Your task to perform on an android device: Is it going to rain this weekend? Image 0: 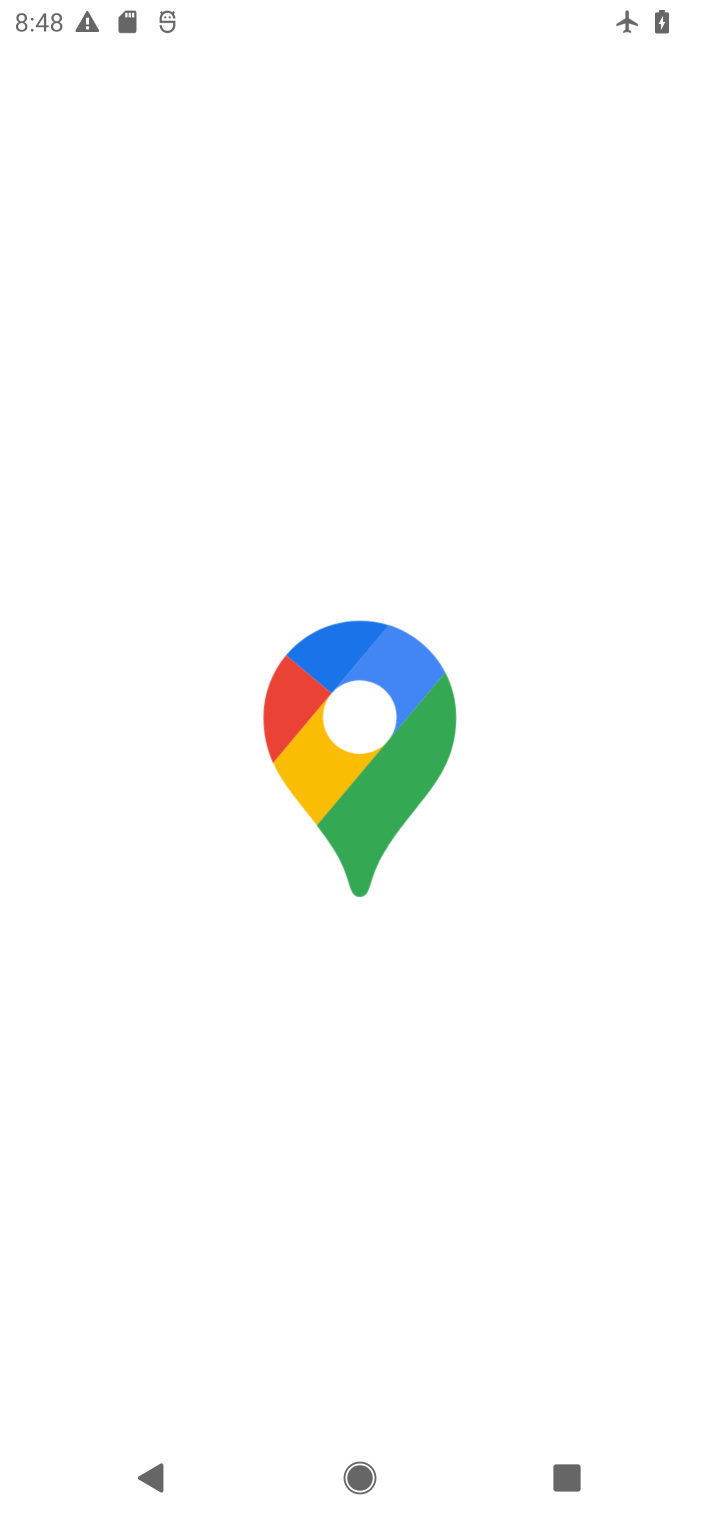
Step 0: press home button
Your task to perform on an android device: Is it going to rain this weekend? Image 1: 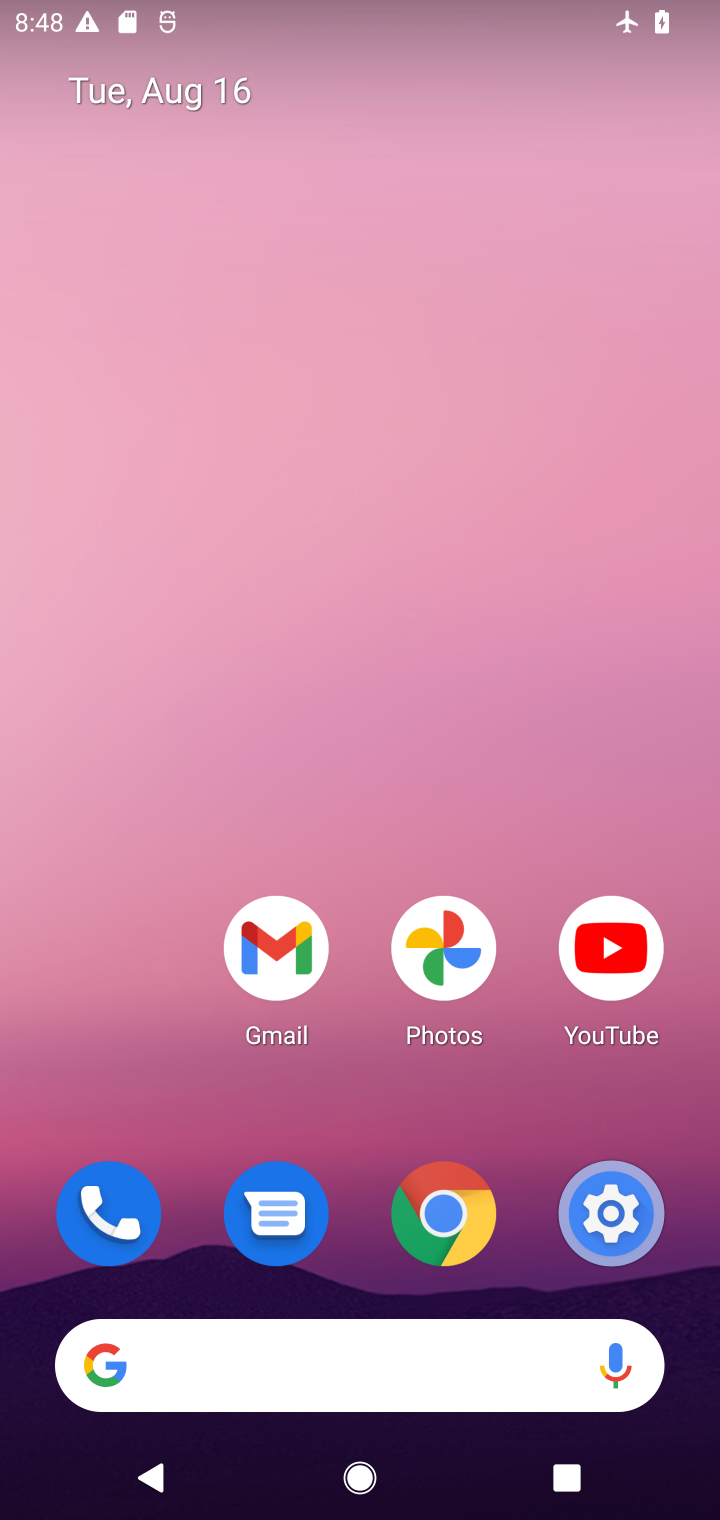
Step 1: drag from (328, 1266) to (354, 322)
Your task to perform on an android device: Is it going to rain this weekend? Image 2: 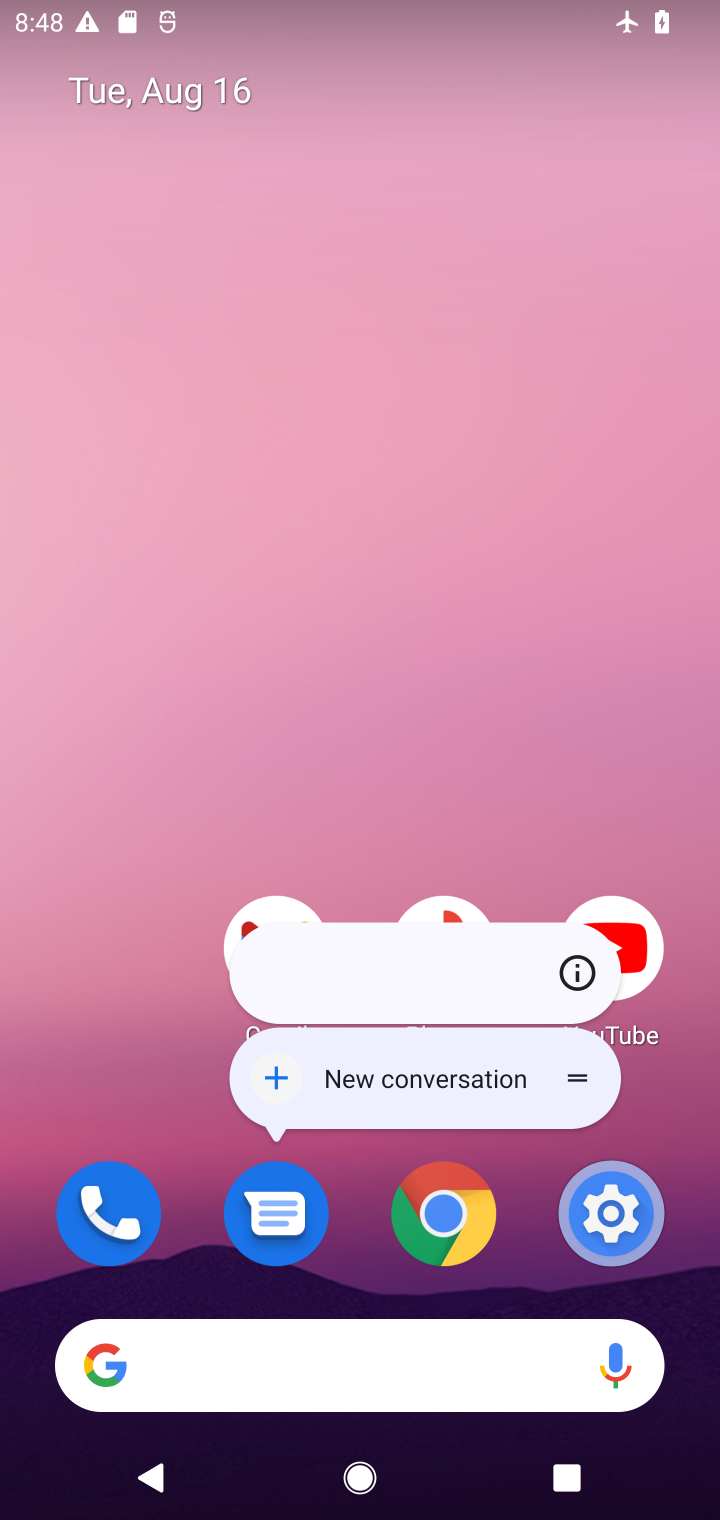
Step 2: drag from (361, 1231) to (367, 145)
Your task to perform on an android device: Is it going to rain this weekend? Image 3: 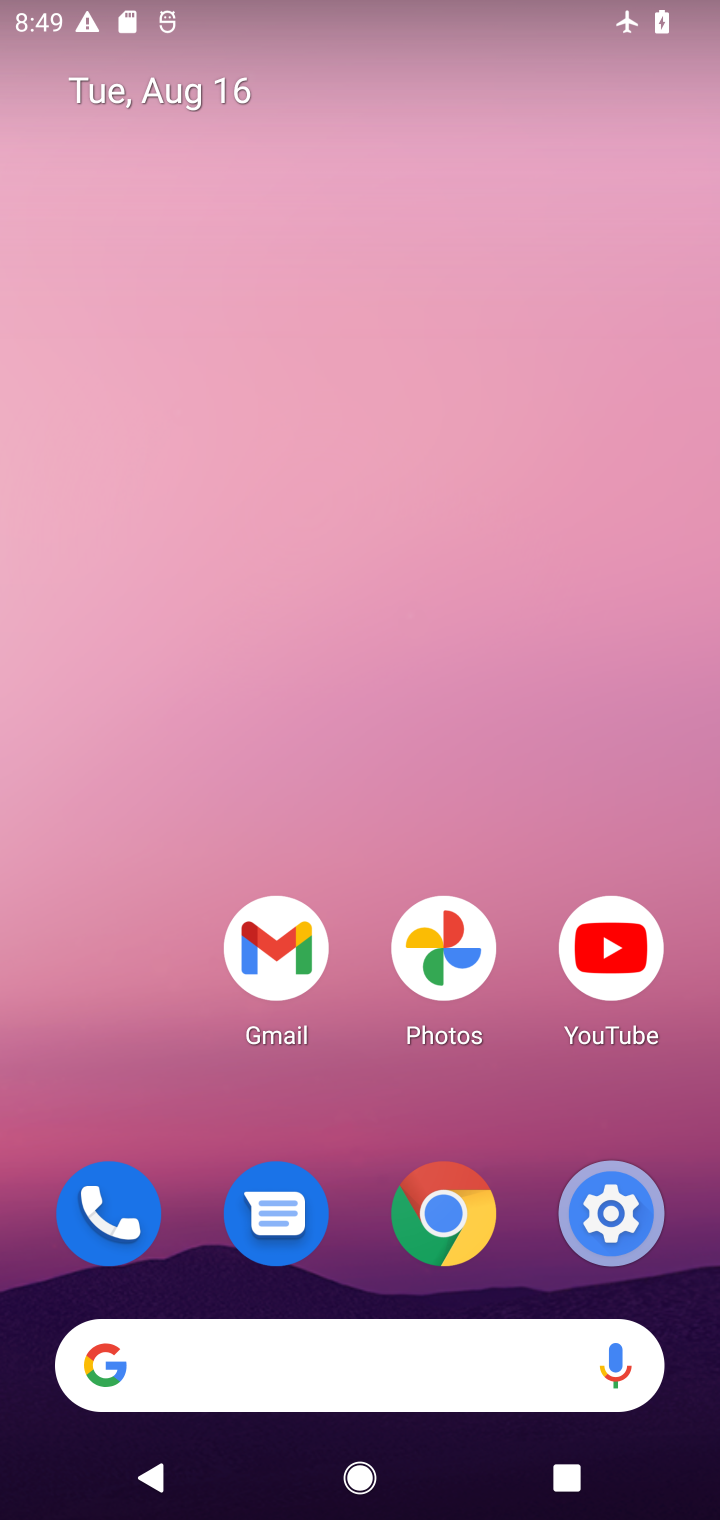
Step 3: click (441, 1254)
Your task to perform on an android device: Is it going to rain this weekend? Image 4: 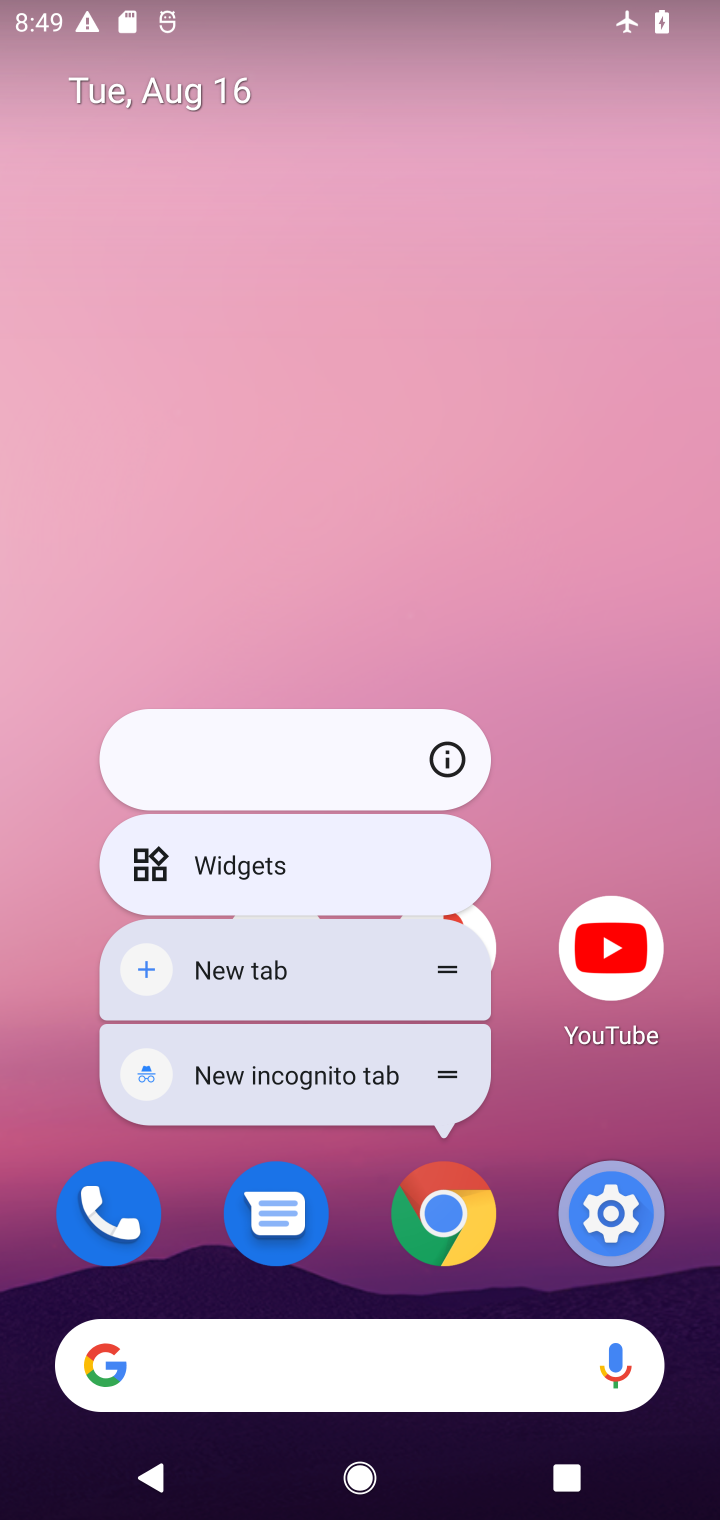
Step 4: click (441, 1246)
Your task to perform on an android device: Is it going to rain this weekend? Image 5: 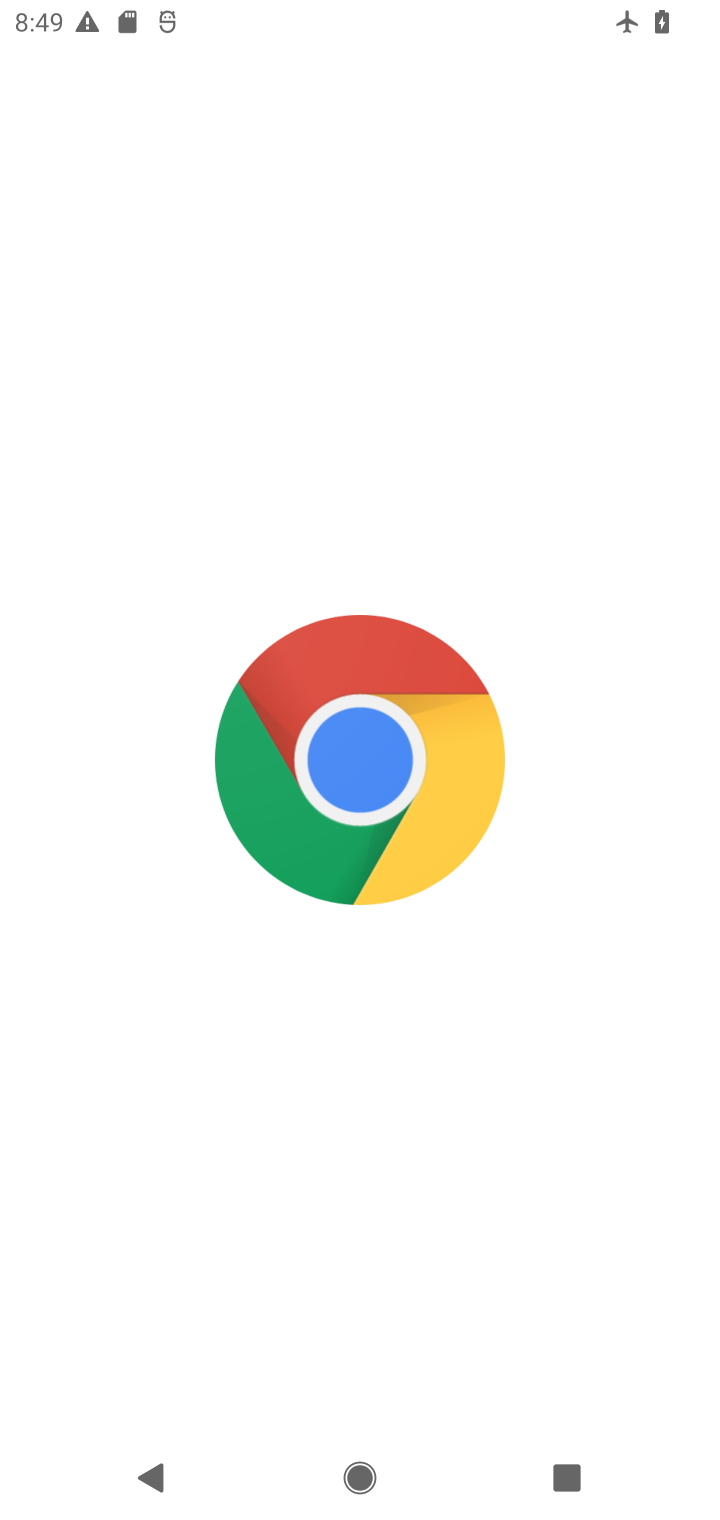
Step 5: click (556, 1279)
Your task to perform on an android device: Is it going to rain this weekend? Image 6: 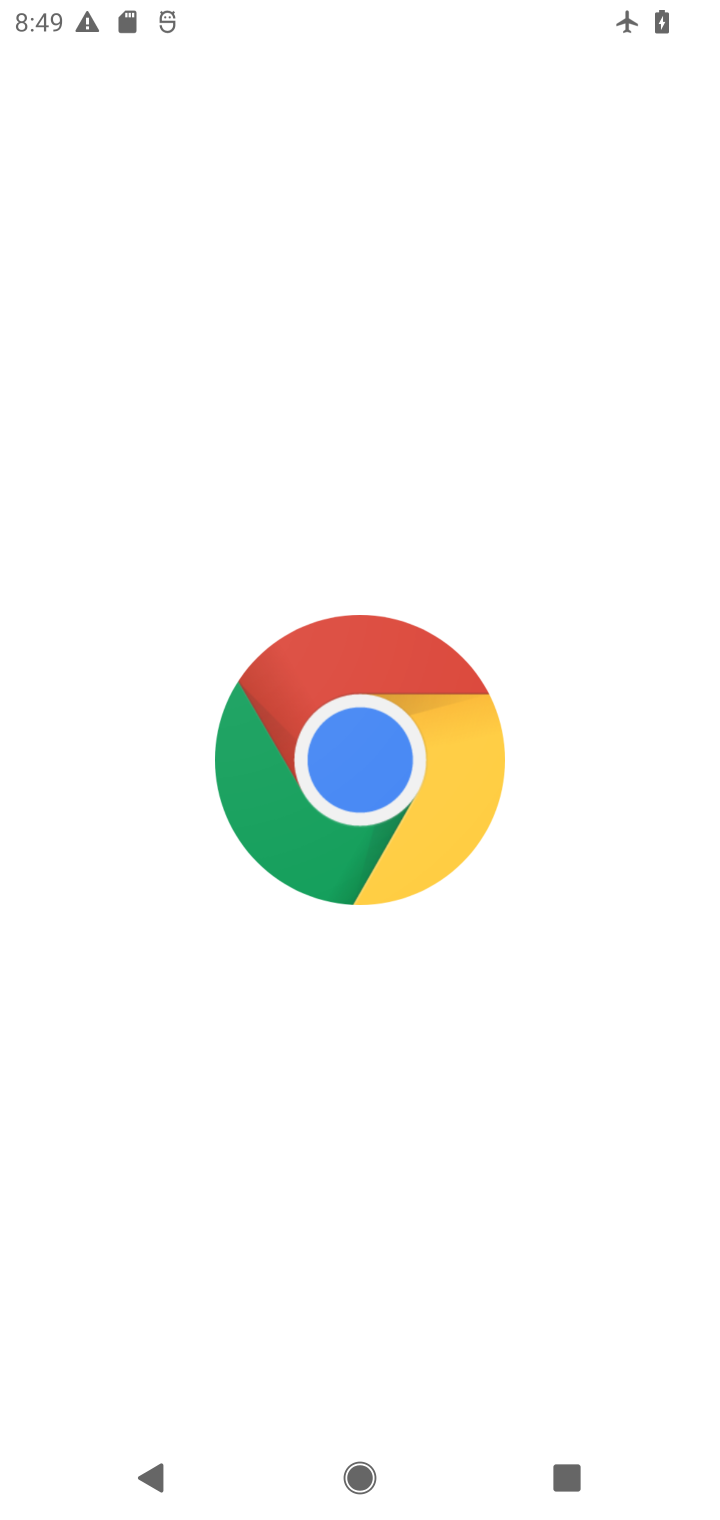
Step 6: click (495, 1348)
Your task to perform on an android device: Is it going to rain this weekend? Image 7: 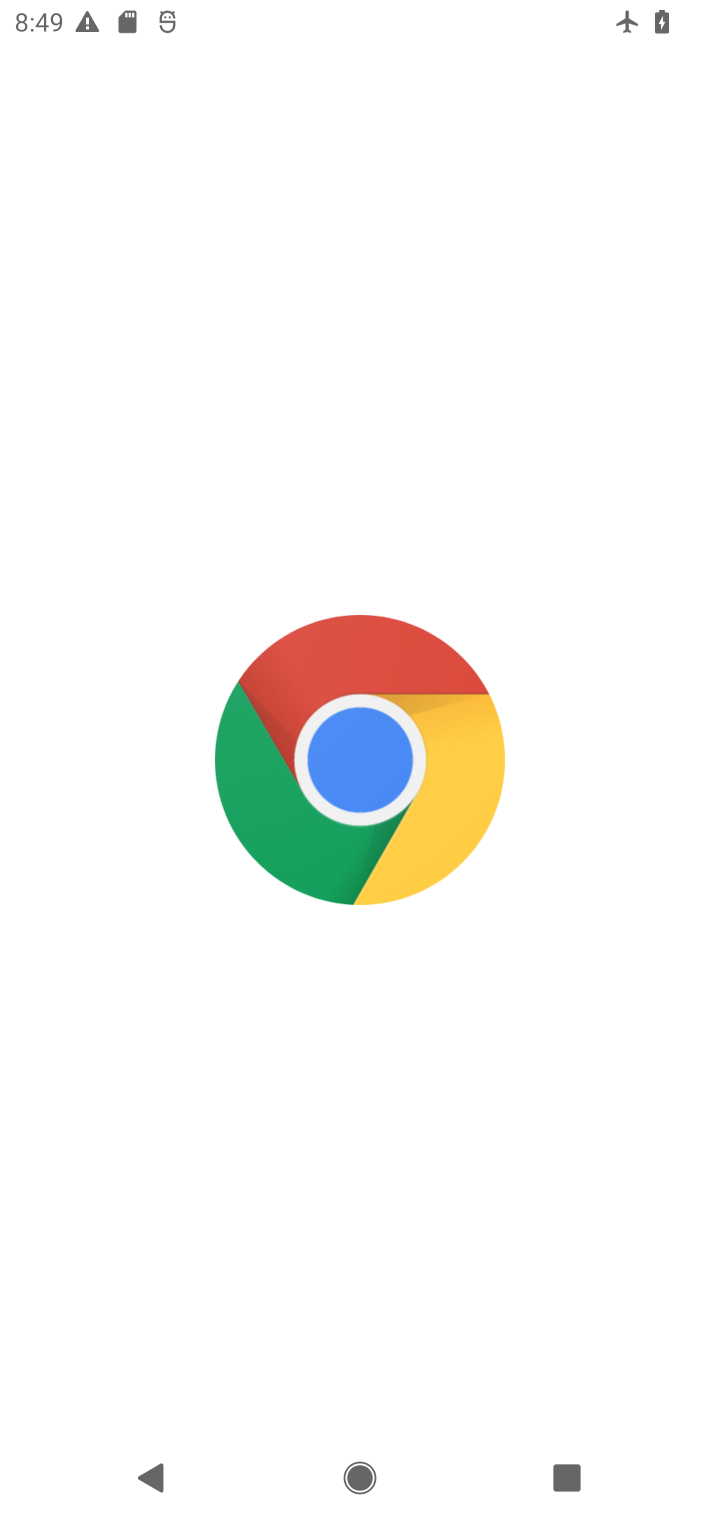
Step 7: task complete